Your task to perform on an android device: turn off picture-in-picture Image 0: 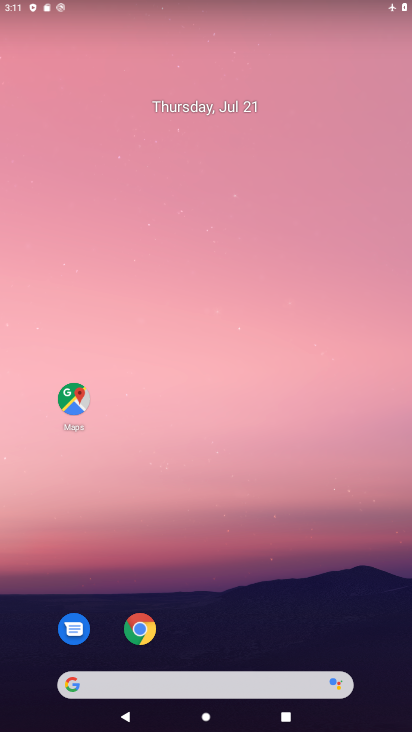
Step 0: click (134, 637)
Your task to perform on an android device: turn off picture-in-picture Image 1: 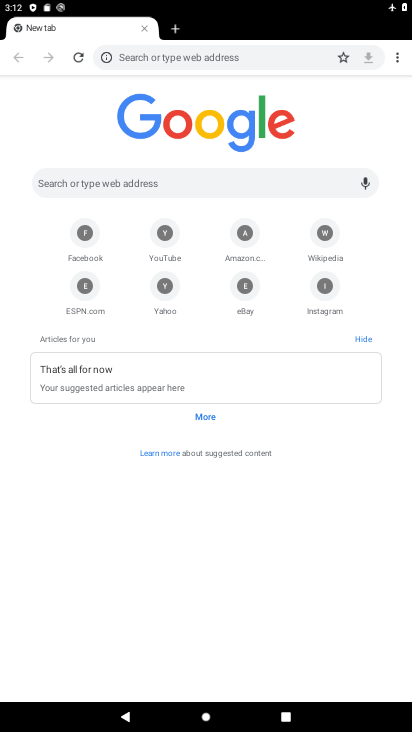
Step 1: press home button
Your task to perform on an android device: turn off picture-in-picture Image 2: 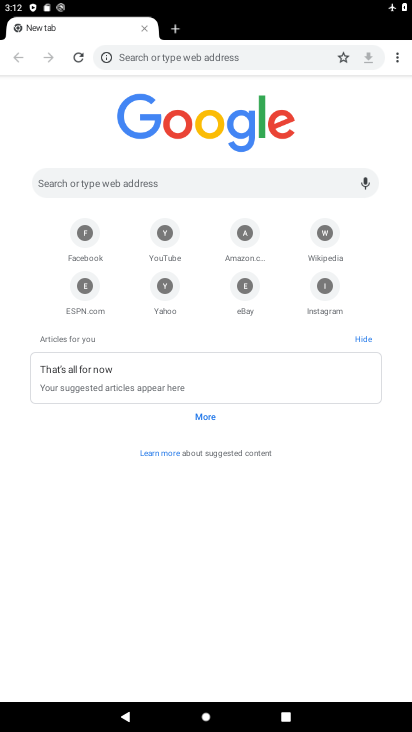
Step 2: press home button
Your task to perform on an android device: turn off picture-in-picture Image 3: 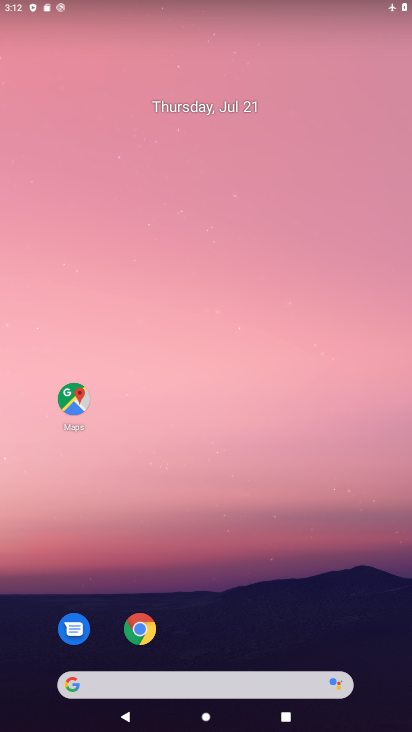
Step 3: click (149, 634)
Your task to perform on an android device: turn off picture-in-picture Image 4: 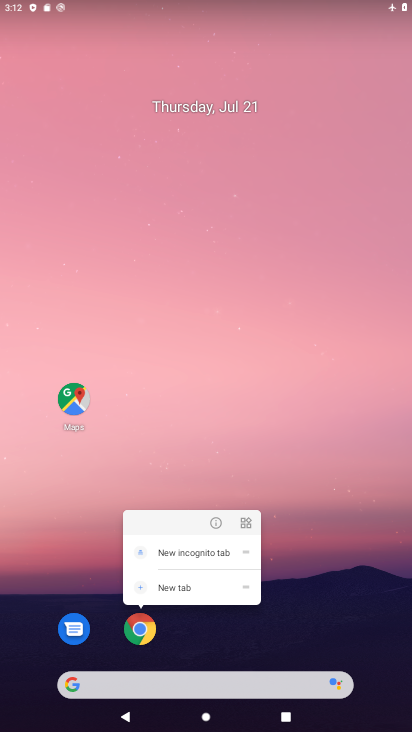
Step 4: click (216, 518)
Your task to perform on an android device: turn off picture-in-picture Image 5: 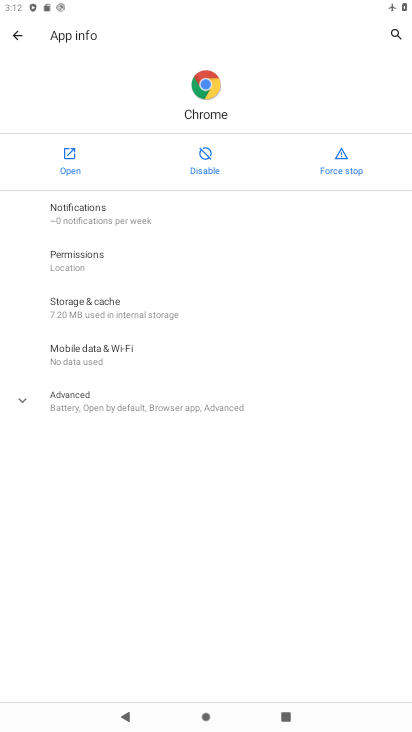
Step 5: click (132, 402)
Your task to perform on an android device: turn off picture-in-picture Image 6: 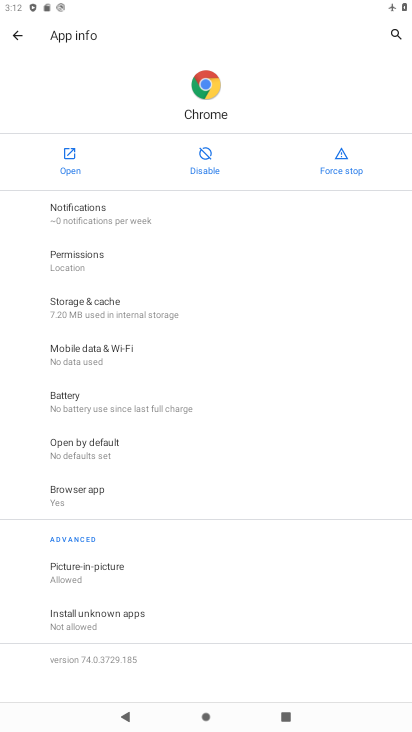
Step 6: drag from (196, 568) to (213, 195)
Your task to perform on an android device: turn off picture-in-picture Image 7: 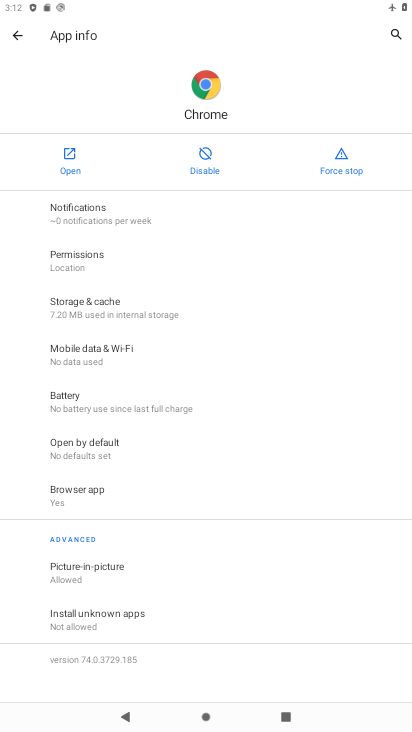
Step 7: click (102, 570)
Your task to perform on an android device: turn off picture-in-picture Image 8: 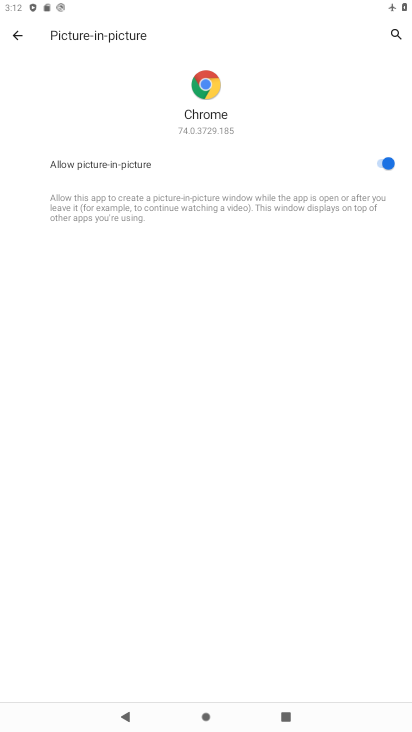
Step 8: click (389, 157)
Your task to perform on an android device: turn off picture-in-picture Image 9: 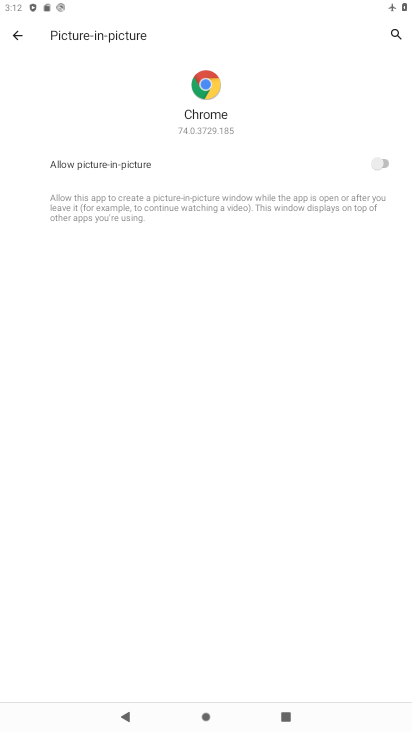
Step 9: task complete